Your task to perform on an android device: Open Wikipedia Image 0: 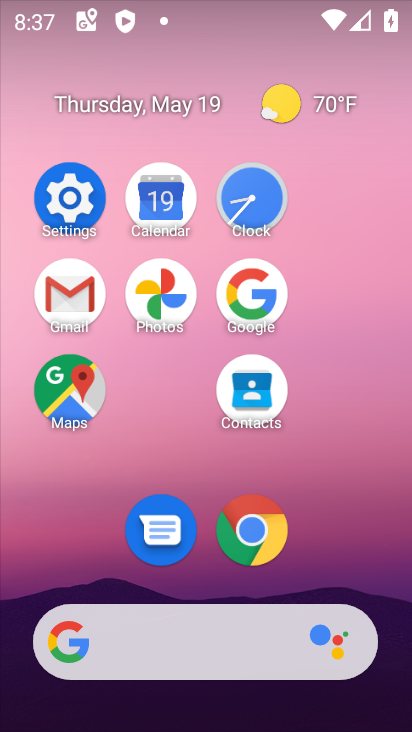
Step 0: click (249, 556)
Your task to perform on an android device: Open Wikipedia Image 1: 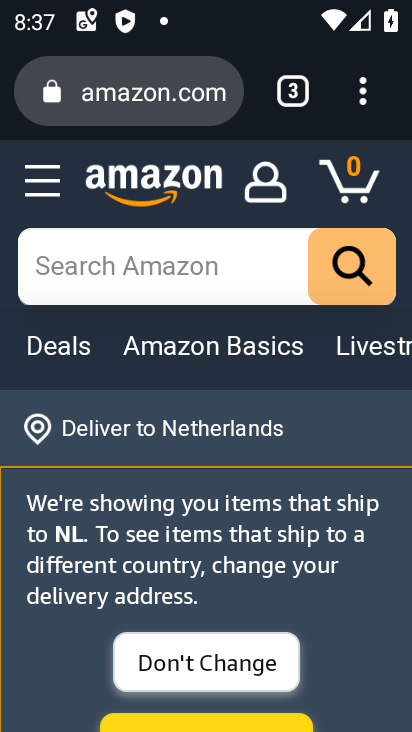
Step 1: click (288, 97)
Your task to perform on an android device: Open Wikipedia Image 2: 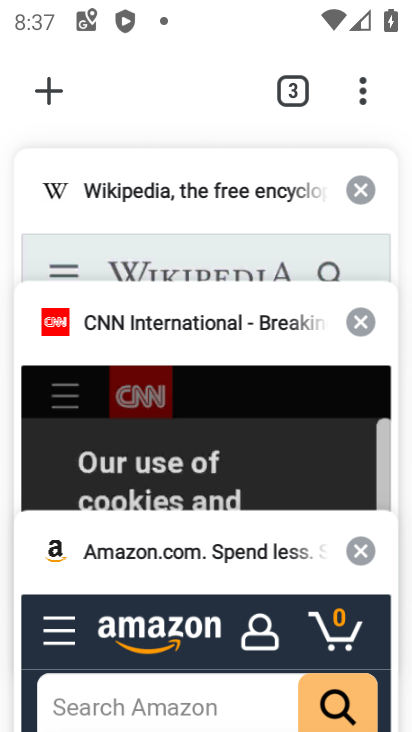
Step 2: click (148, 213)
Your task to perform on an android device: Open Wikipedia Image 3: 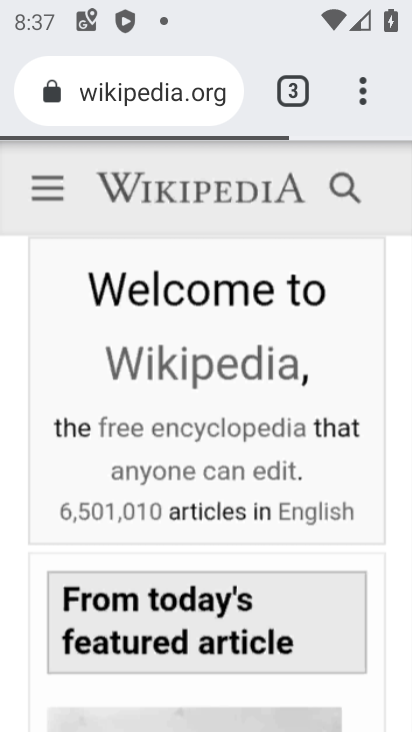
Step 3: task complete